Your task to perform on an android device: Open ESPN.com Image 0: 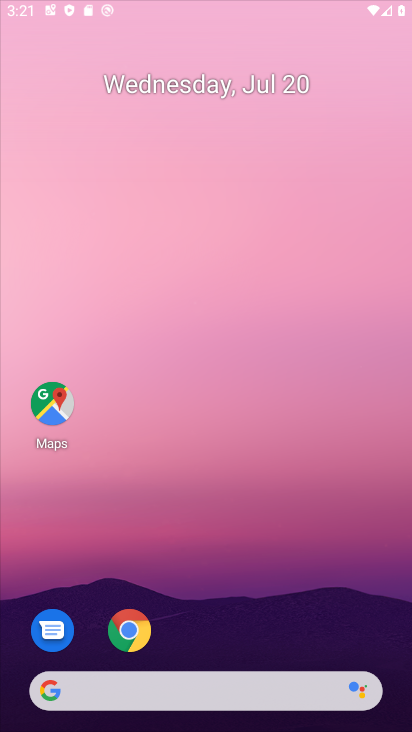
Step 0: press home button
Your task to perform on an android device: Open ESPN.com Image 1: 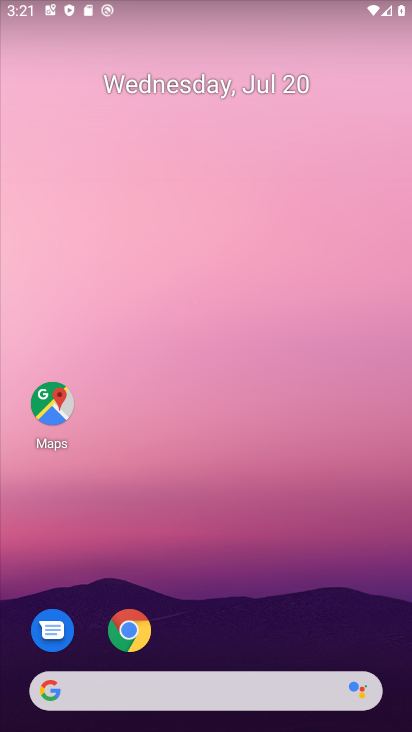
Step 1: click (125, 622)
Your task to perform on an android device: Open ESPN.com Image 2: 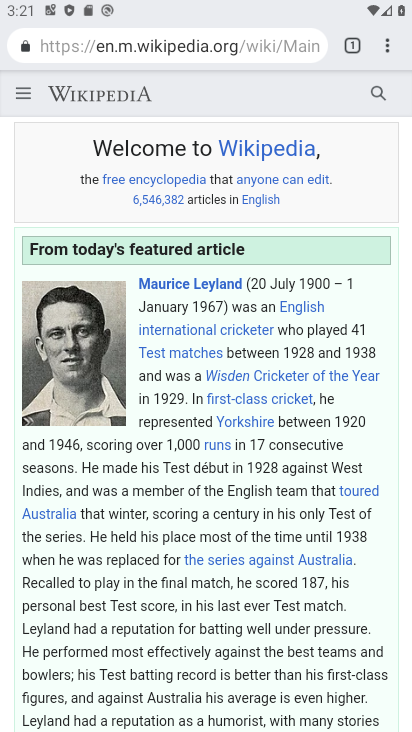
Step 2: click (350, 47)
Your task to perform on an android device: Open ESPN.com Image 3: 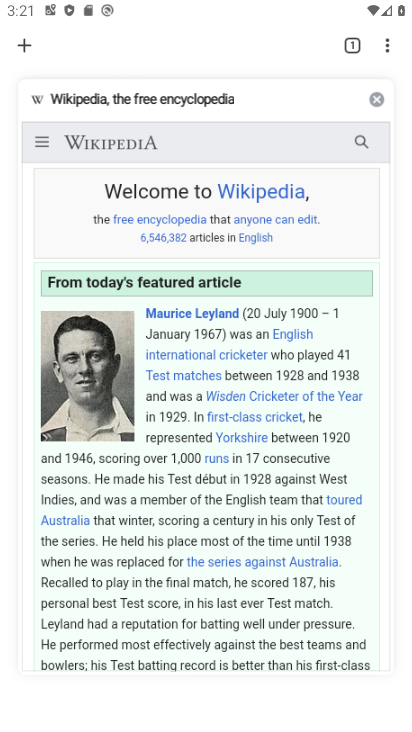
Step 3: click (22, 41)
Your task to perform on an android device: Open ESPN.com Image 4: 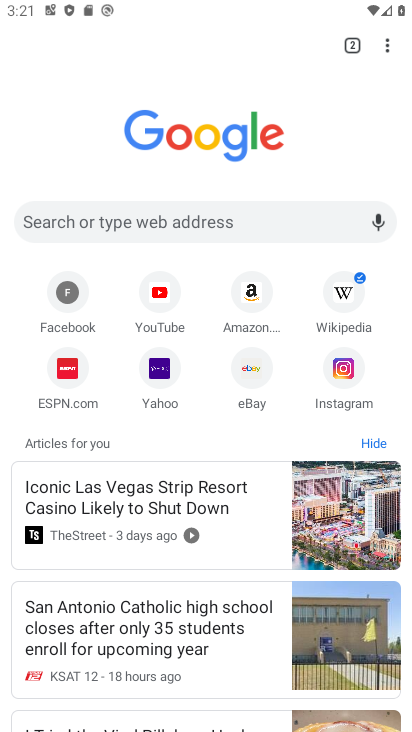
Step 4: click (66, 366)
Your task to perform on an android device: Open ESPN.com Image 5: 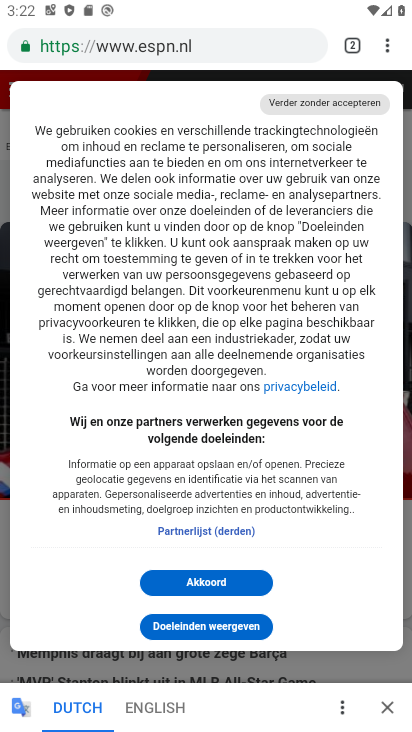
Step 5: click (207, 573)
Your task to perform on an android device: Open ESPN.com Image 6: 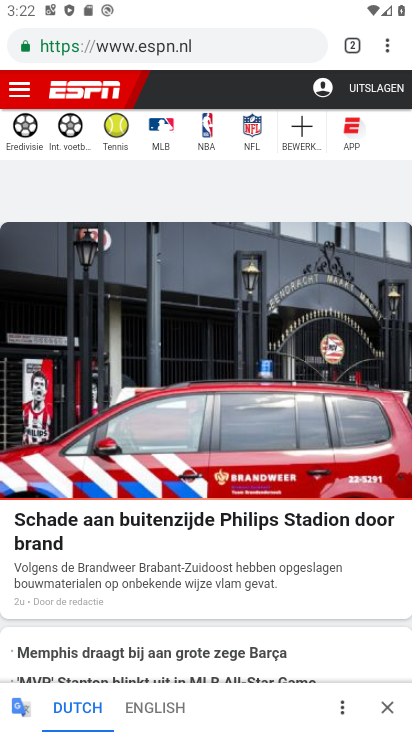
Step 6: task complete